Your task to perform on an android device: Show me the alarms in the clock app Image 0: 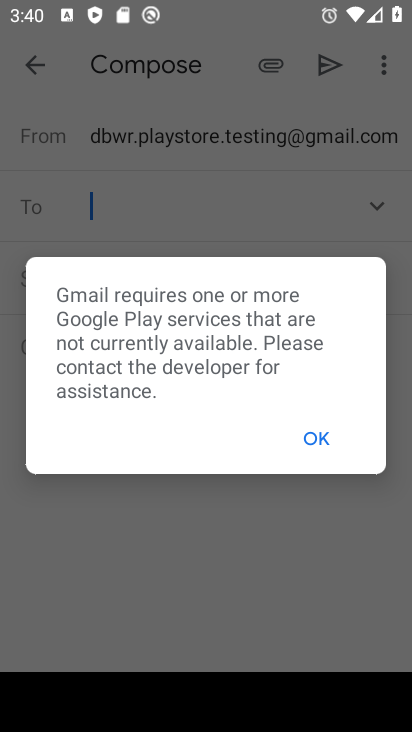
Step 0: click (316, 431)
Your task to perform on an android device: Show me the alarms in the clock app Image 1: 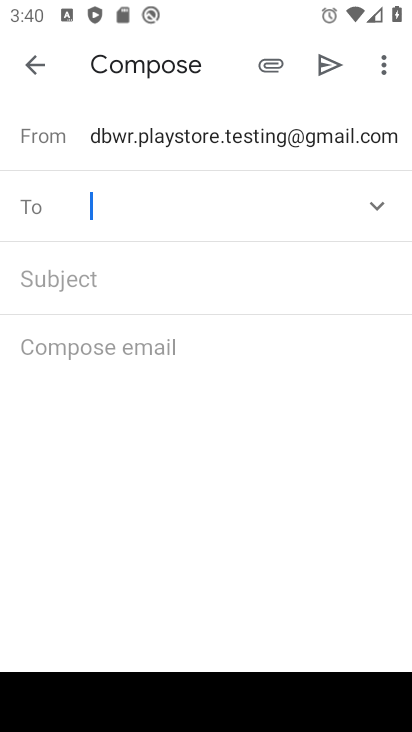
Step 1: drag from (241, 563) to (296, 367)
Your task to perform on an android device: Show me the alarms in the clock app Image 2: 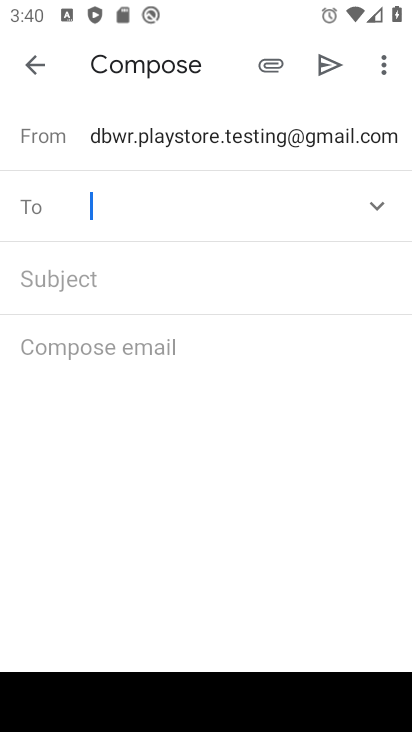
Step 2: press home button
Your task to perform on an android device: Show me the alarms in the clock app Image 3: 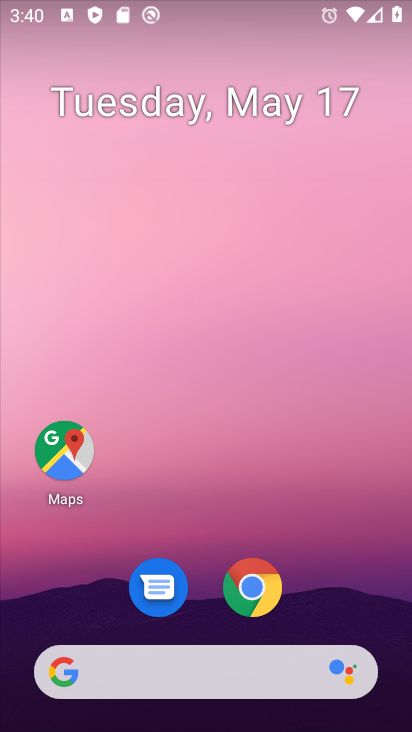
Step 3: drag from (171, 614) to (276, 205)
Your task to perform on an android device: Show me the alarms in the clock app Image 4: 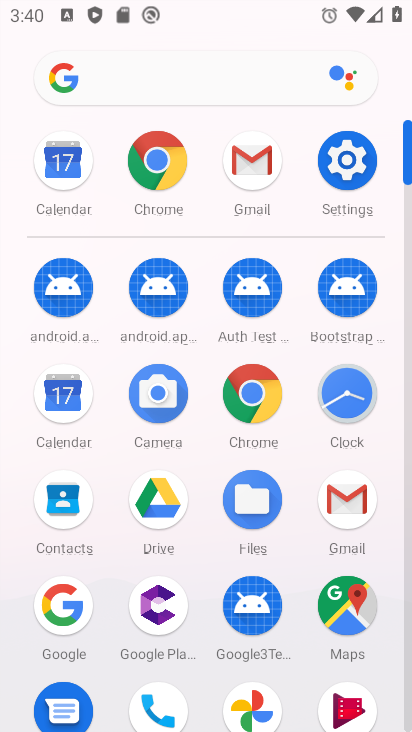
Step 4: click (346, 396)
Your task to perform on an android device: Show me the alarms in the clock app Image 5: 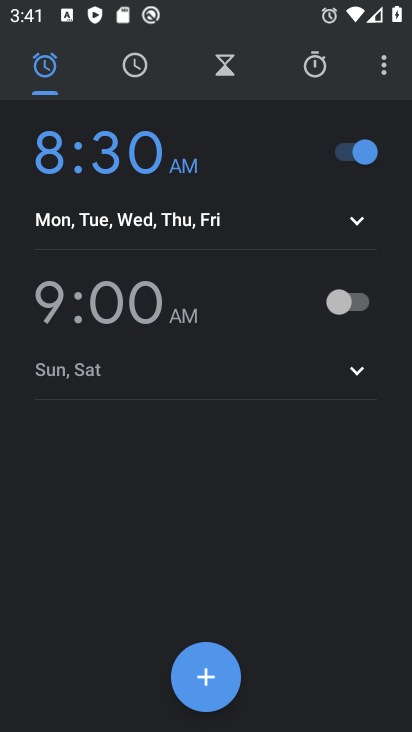
Step 5: drag from (202, 423) to (247, 135)
Your task to perform on an android device: Show me the alarms in the clock app Image 6: 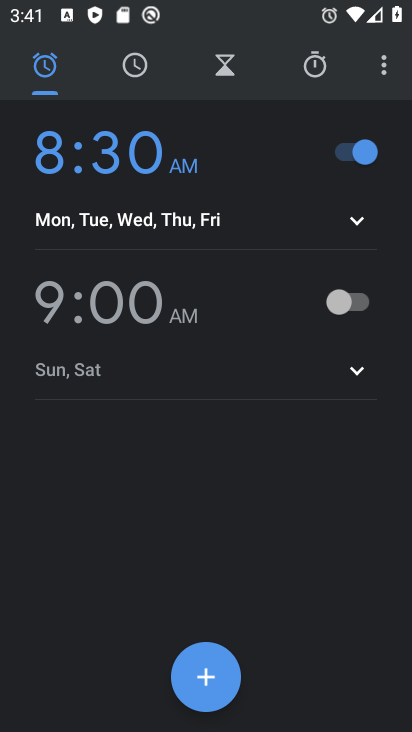
Step 6: click (319, 72)
Your task to perform on an android device: Show me the alarms in the clock app Image 7: 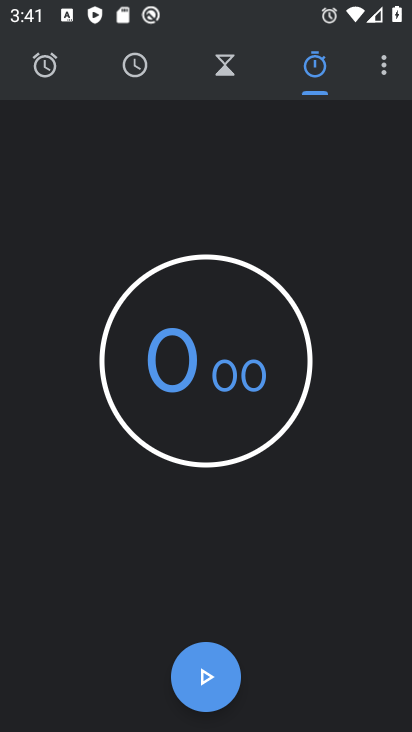
Step 7: click (43, 66)
Your task to perform on an android device: Show me the alarms in the clock app Image 8: 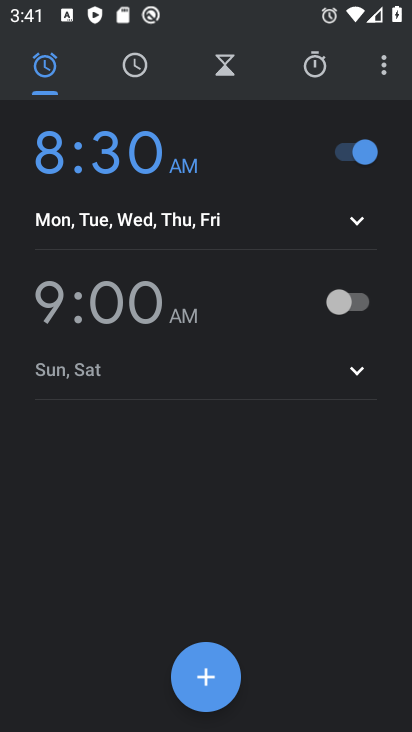
Step 8: task complete